Your task to perform on an android device: refresh tabs in the chrome app Image 0: 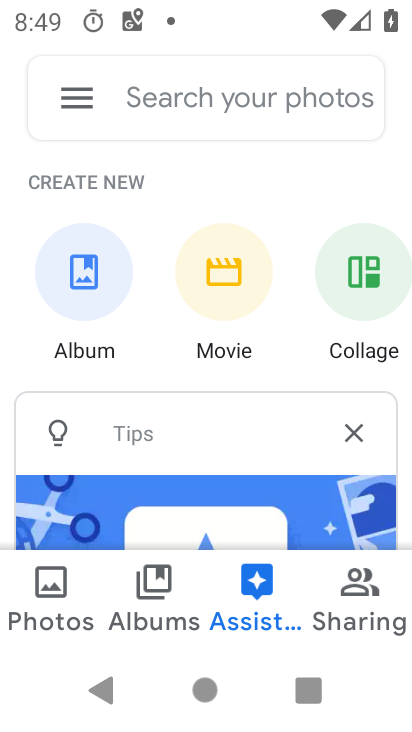
Step 0: press back button
Your task to perform on an android device: refresh tabs in the chrome app Image 1: 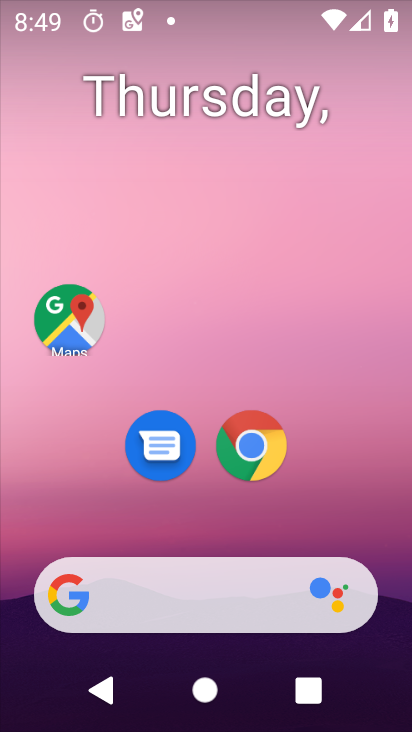
Step 1: click (246, 427)
Your task to perform on an android device: refresh tabs in the chrome app Image 2: 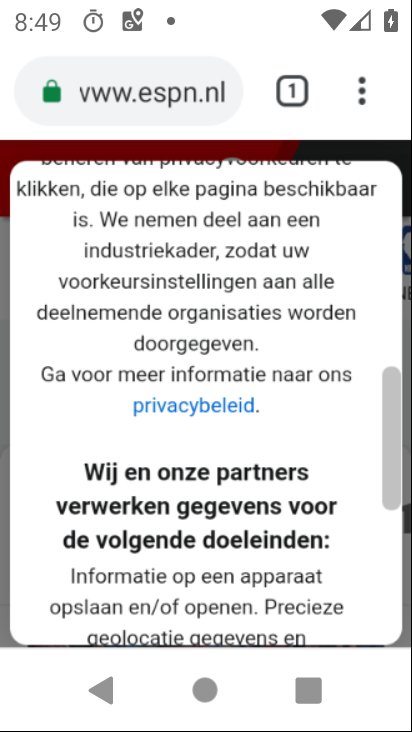
Step 2: click (351, 96)
Your task to perform on an android device: refresh tabs in the chrome app Image 3: 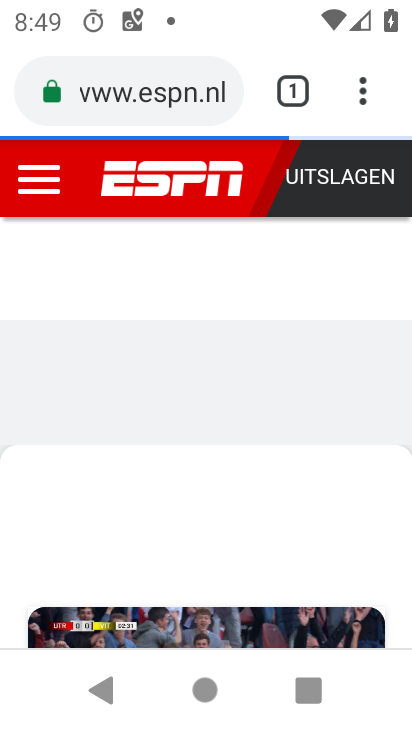
Step 3: click (363, 89)
Your task to perform on an android device: refresh tabs in the chrome app Image 4: 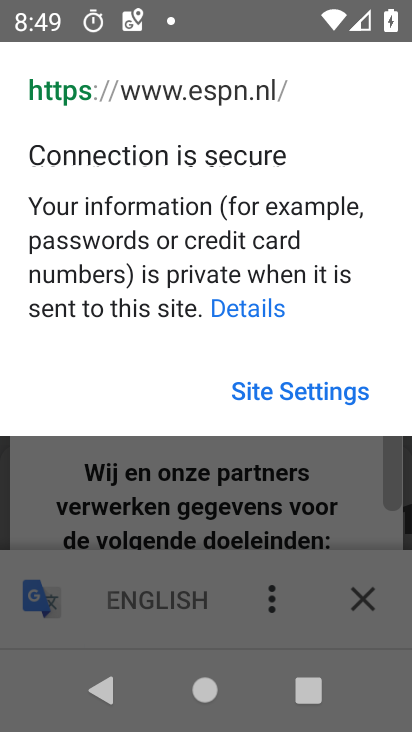
Step 4: click (362, 597)
Your task to perform on an android device: refresh tabs in the chrome app Image 5: 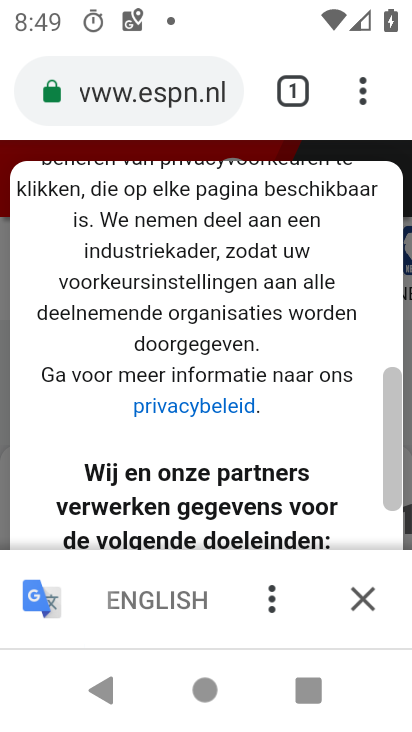
Step 5: click (354, 99)
Your task to perform on an android device: refresh tabs in the chrome app Image 6: 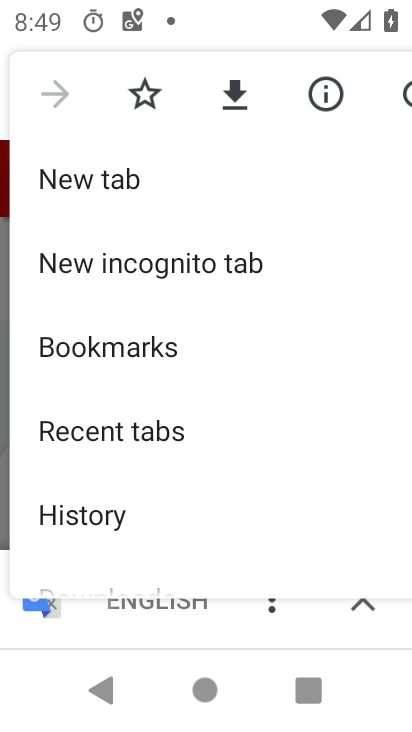
Step 6: click (409, 91)
Your task to perform on an android device: refresh tabs in the chrome app Image 7: 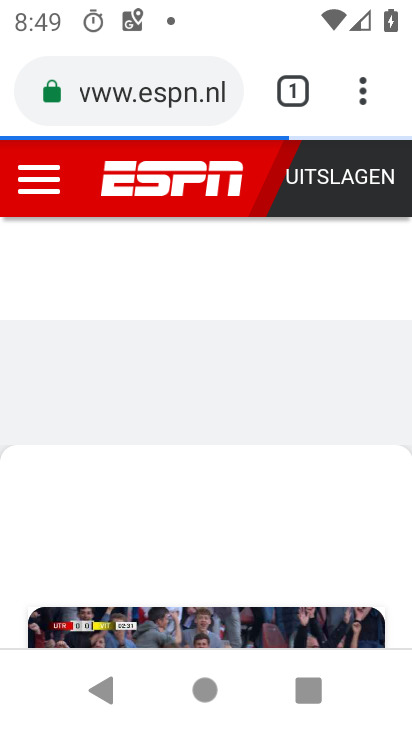
Step 7: task complete